Your task to perform on an android device: When is my next meeting? Image 0: 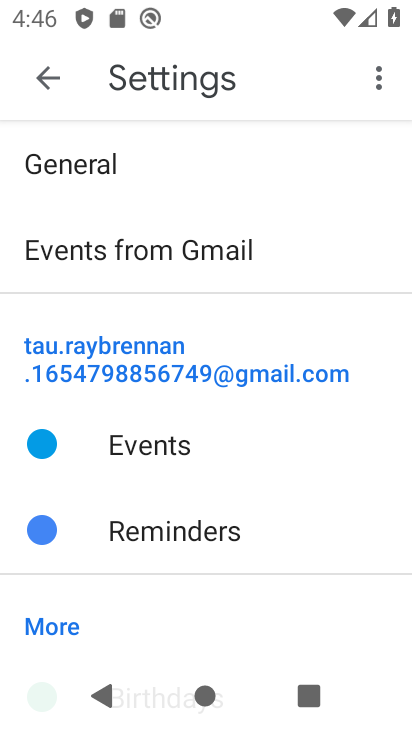
Step 0: press home button
Your task to perform on an android device: When is my next meeting? Image 1: 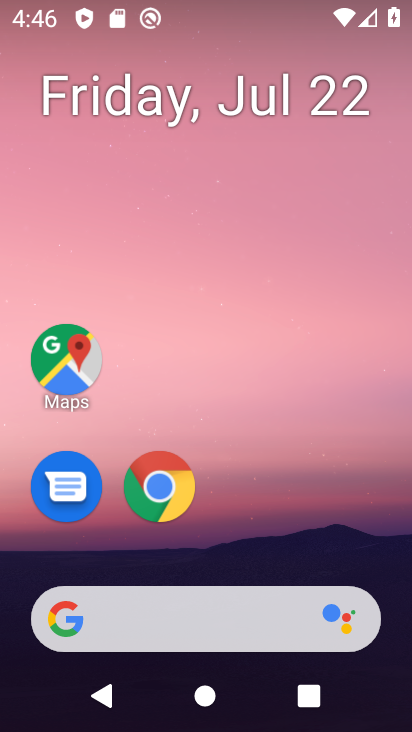
Step 1: drag from (385, 580) to (294, 135)
Your task to perform on an android device: When is my next meeting? Image 2: 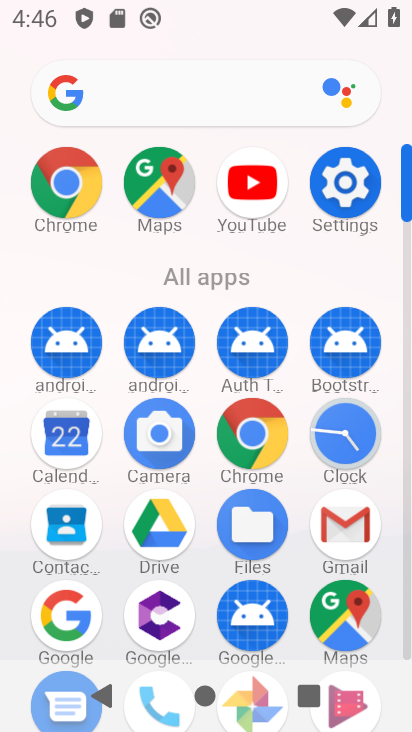
Step 2: click (348, 167)
Your task to perform on an android device: When is my next meeting? Image 3: 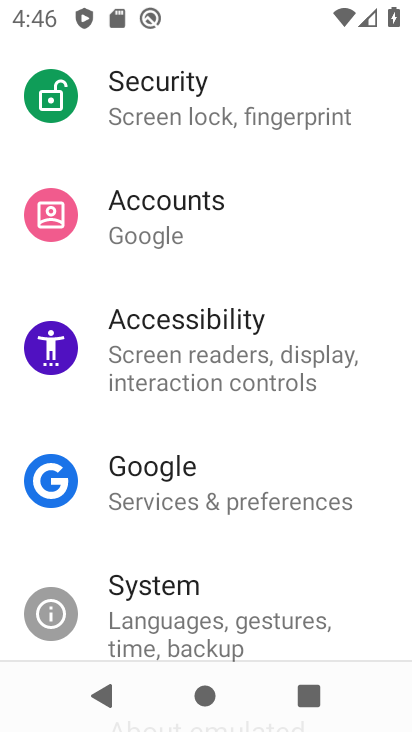
Step 3: press home button
Your task to perform on an android device: When is my next meeting? Image 4: 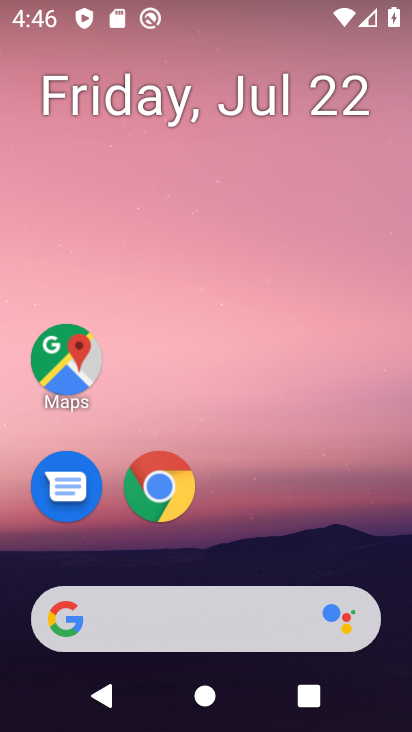
Step 4: drag from (392, 517) to (314, 113)
Your task to perform on an android device: When is my next meeting? Image 5: 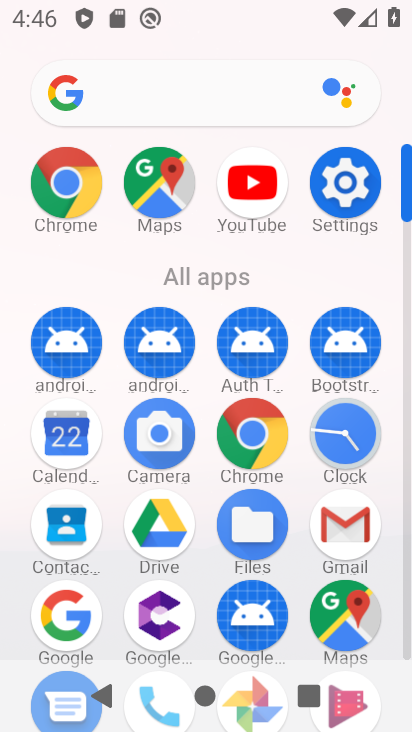
Step 5: click (63, 477)
Your task to perform on an android device: When is my next meeting? Image 6: 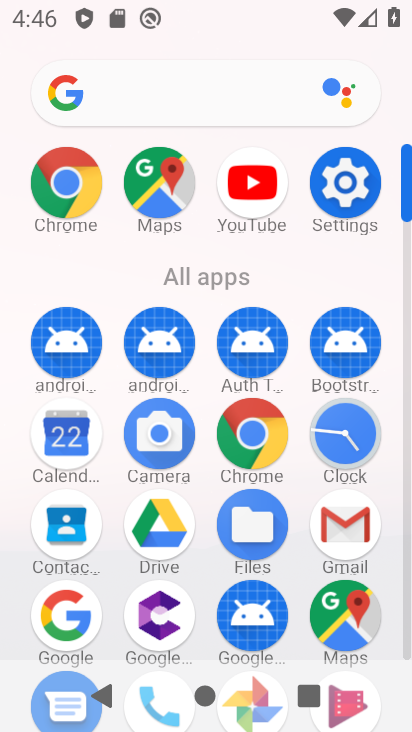
Step 6: click (63, 477)
Your task to perform on an android device: When is my next meeting? Image 7: 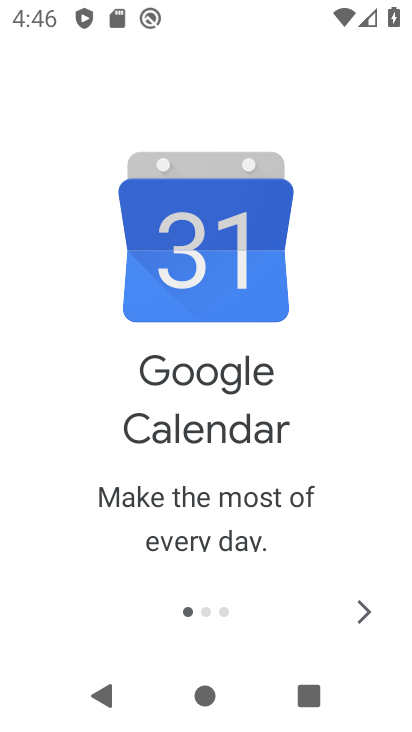
Step 7: click (361, 617)
Your task to perform on an android device: When is my next meeting? Image 8: 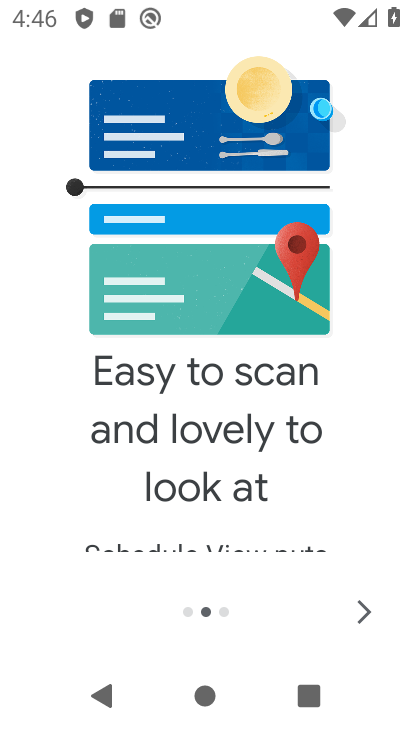
Step 8: click (361, 617)
Your task to perform on an android device: When is my next meeting? Image 9: 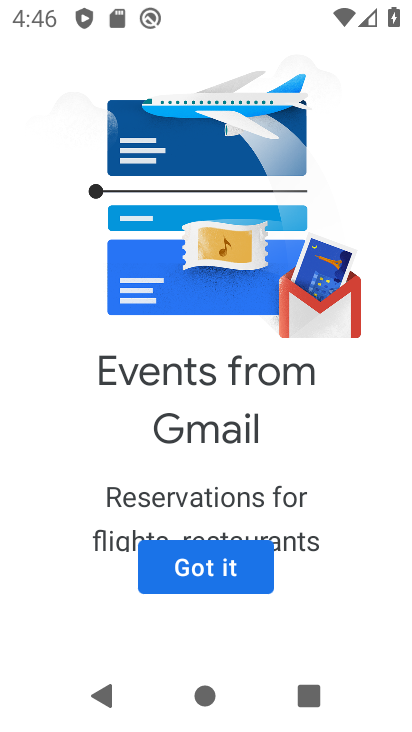
Step 9: click (361, 617)
Your task to perform on an android device: When is my next meeting? Image 10: 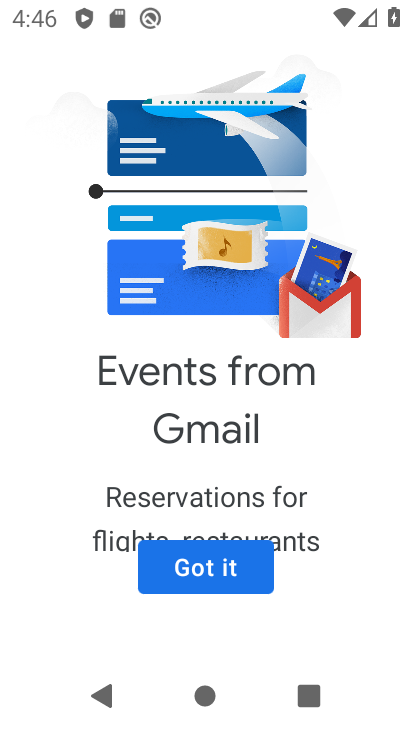
Step 10: click (181, 547)
Your task to perform on an android device: When is my next meeting? Image 11: 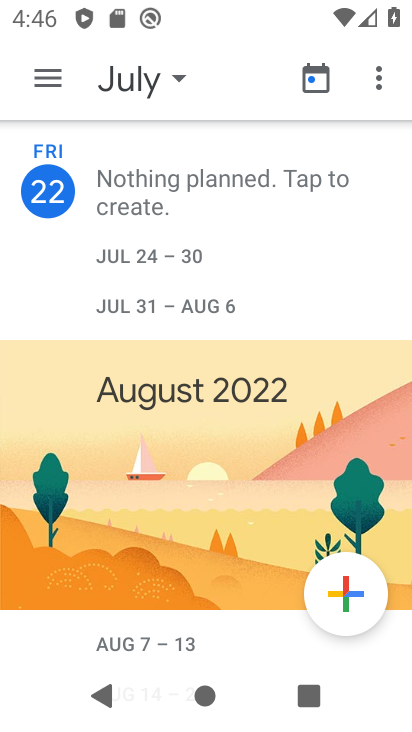
Step 11: click (61, 97)
Your task to perform on an android device: When is my next meeting? Image 12: 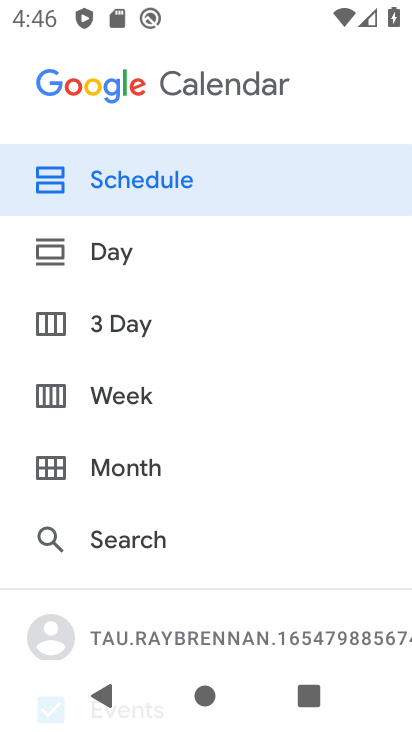
Step 12: click (175, 200)
Your task to perform on an android device: When is my next meeting? Image 13: 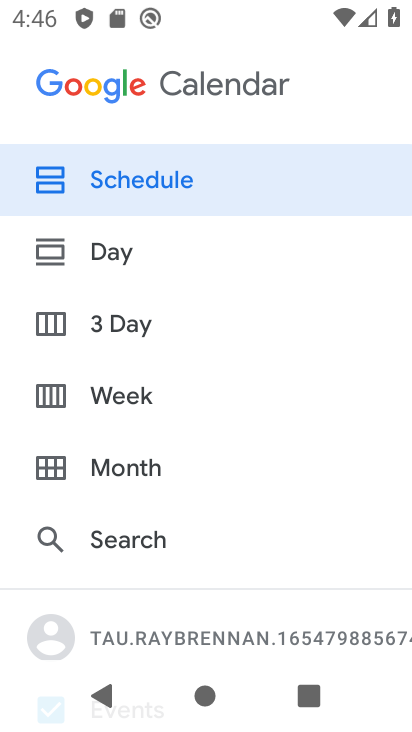
Step 13: click (175, 200)
Your task to perform on an android device: When is my next meeting? Image 14: 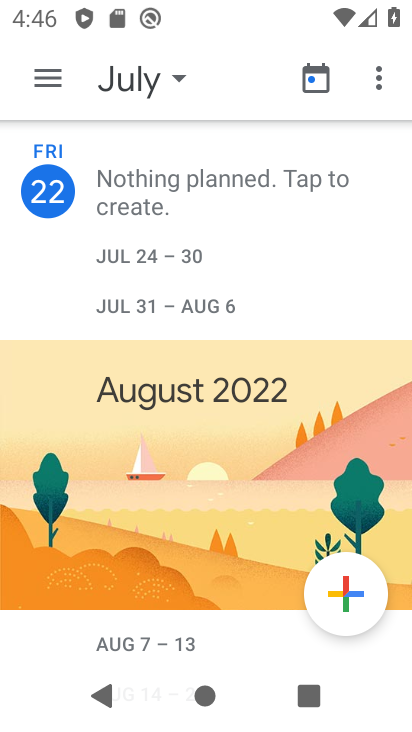
Step 14: task complete